Your task to perform on an android device: Open display settings Image 0: 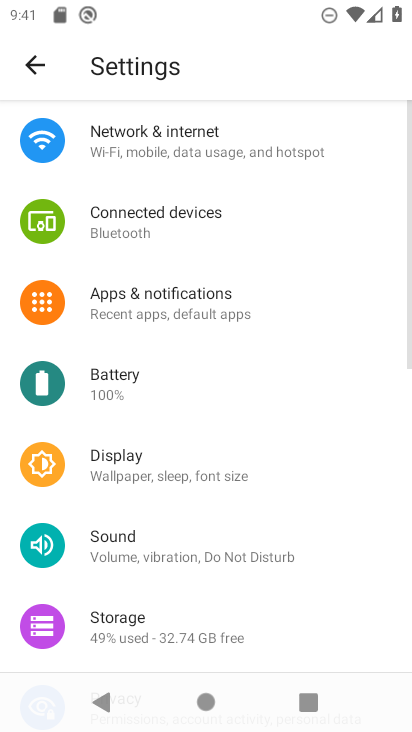
Step 0: click (96, 460)
Your task to perform on an android device: Open display settings Image 1: 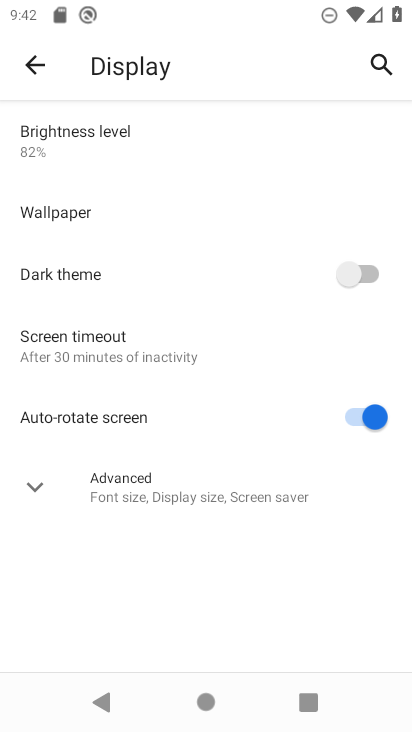
Step 1: task complete